Your task to perform on an android device: set the timer Image 0: 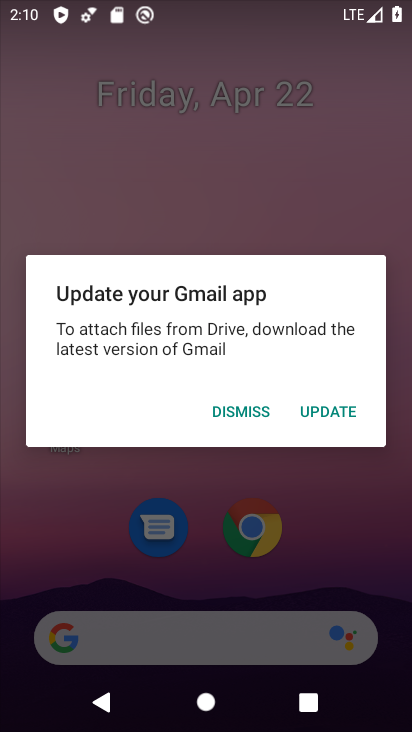
Step 0: press home button
Your task to perform on an android device: set the timer Image 1: 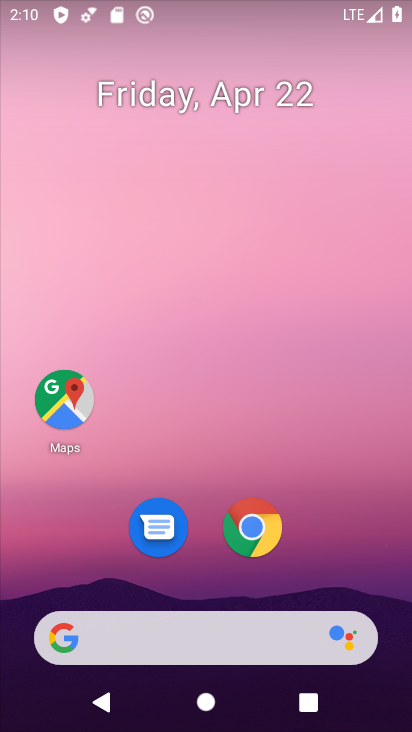
Step 1: drag from (328, 530) to (206, 104)
Your task to perform on an android device: set the timer Image 2: 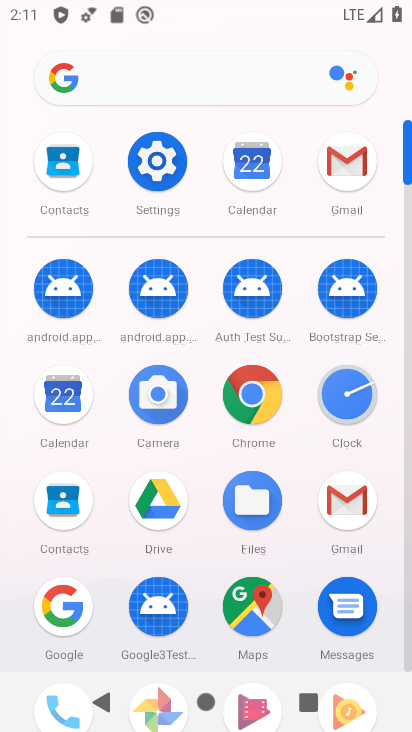
Step 2: click (336, 398)
Your task to perform on an android device: set the timer Image 3: 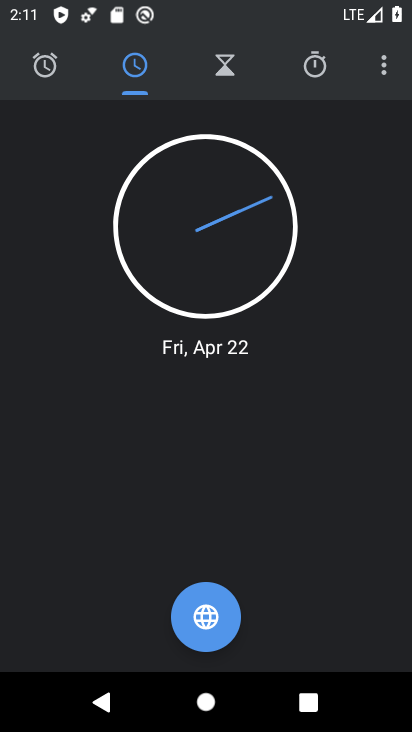
Step 3: click (231, 75)
Your task to perform on an android device: set the timer Image 4: 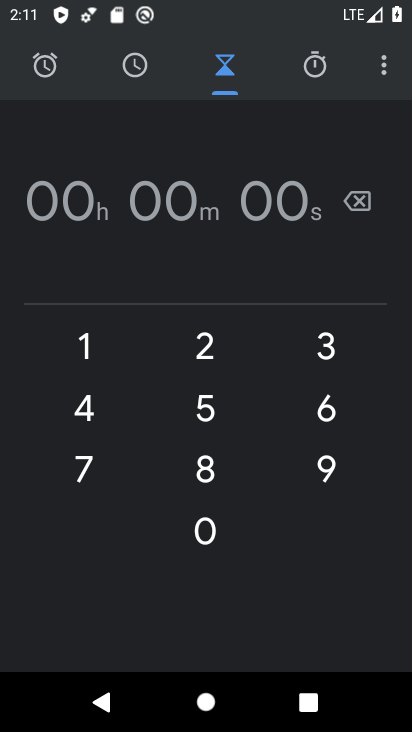
Step 4: click (206, 476)
Your task to perform on an android device: set the timer Image 5: 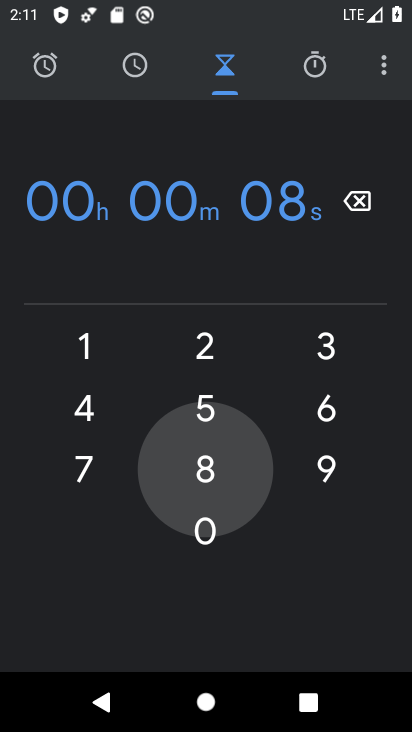
Step 5: click (206, 476)
Your task to perform on an android device: set the timer Image 6: 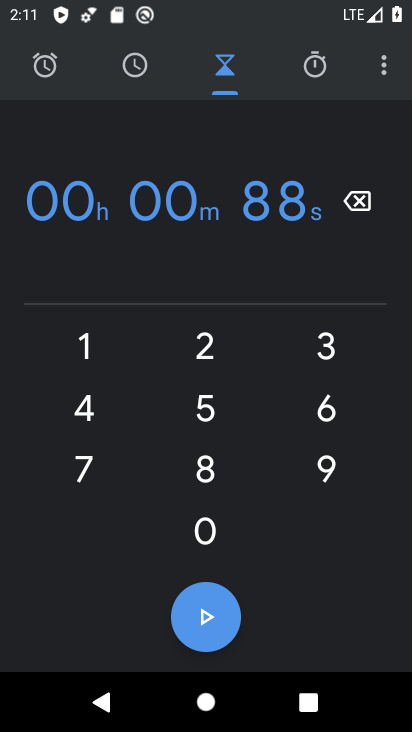
Step 6: click (206, 476)
Your task to perform on an android device: set the timer Image 7: 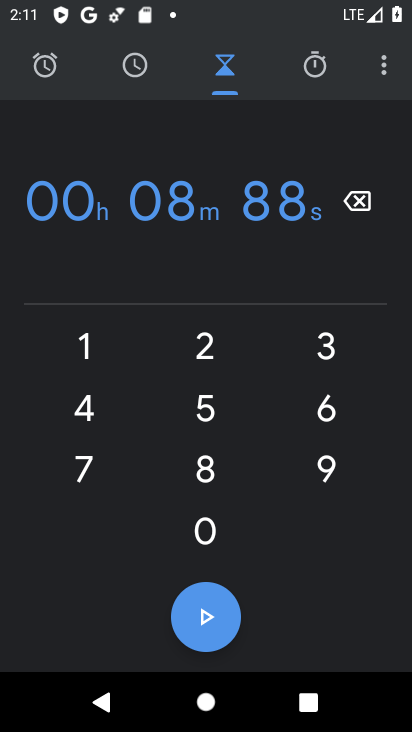
Step 7: click (206, 476)
Your task to perform on an android device: set the timer Image 8: 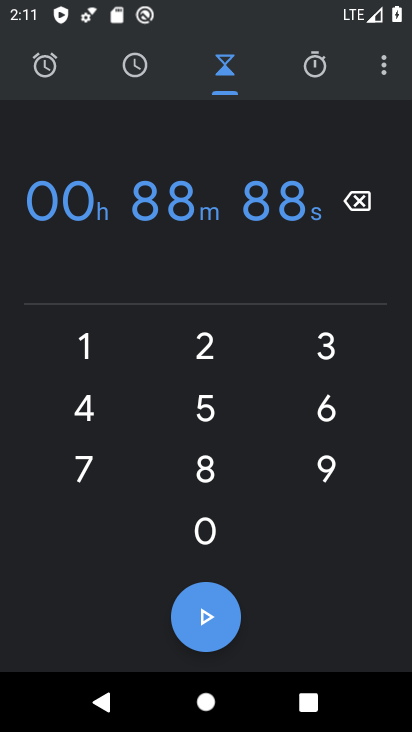
Step 8: click (206, 476)
Your task to perform on an android device: set the timer Image 9: 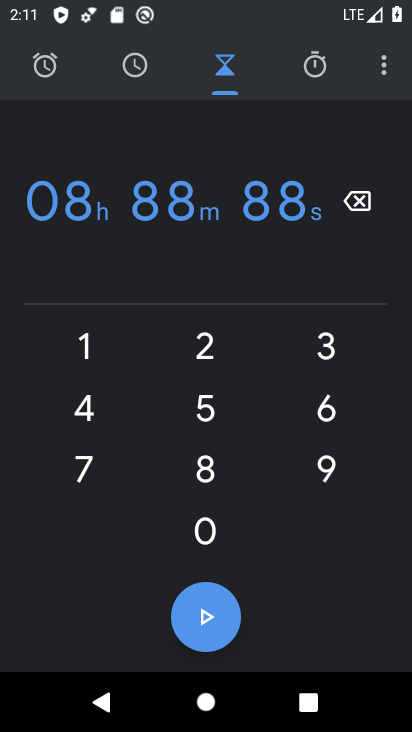
Step 9: click (202, 620)
Your task to perform on an android device: set the timer Image 10: 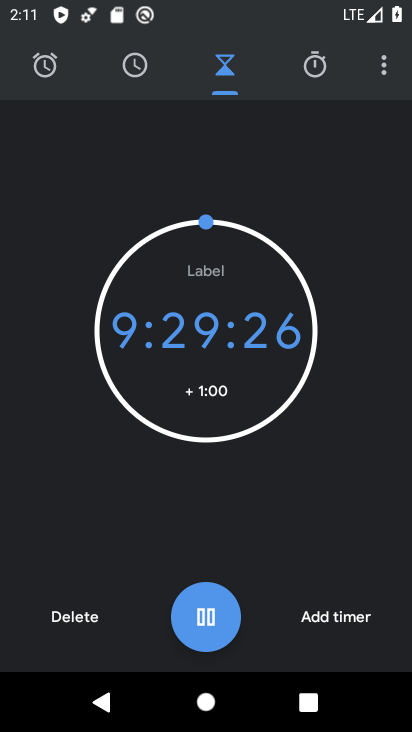
Step 10: click (326, 618)
Your task to perform on an android device: set the timer Image 11: 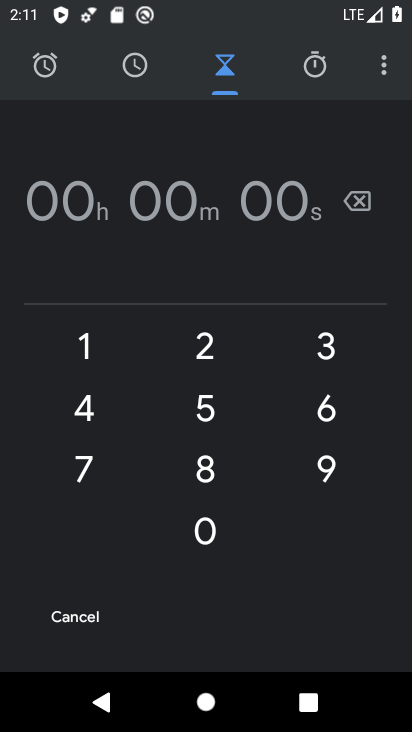
Step 11: task complete